Your task to perform on an android device: Go to Wikipedia Image 0: 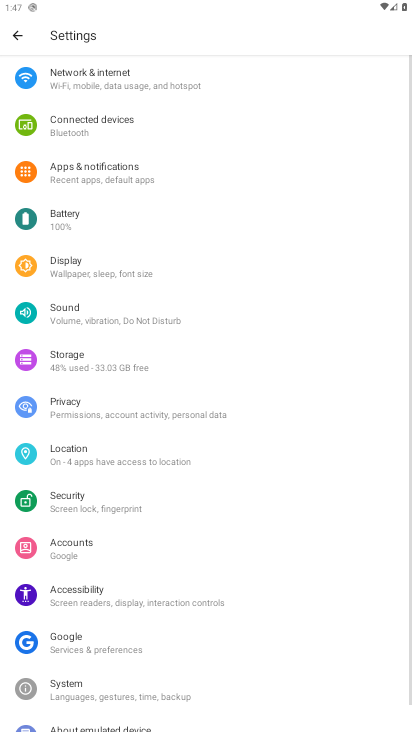
Step 0: press home button
Your task to perform on an android device: Go to Wikipedia Image 1: 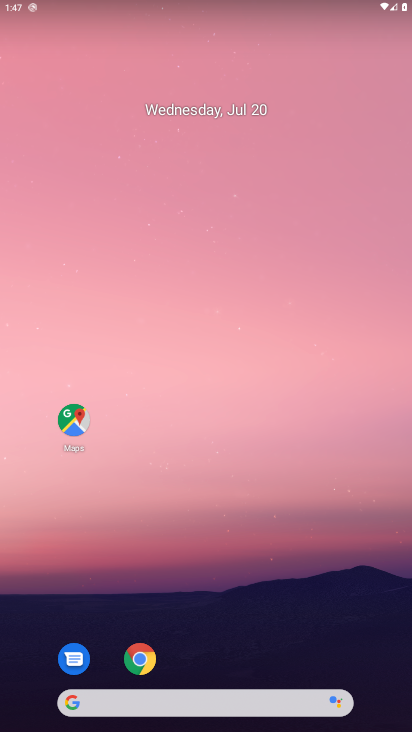
Step 1: click (105, 703)
Your task to perform on an android device: Go to Wikipedia Image 2: 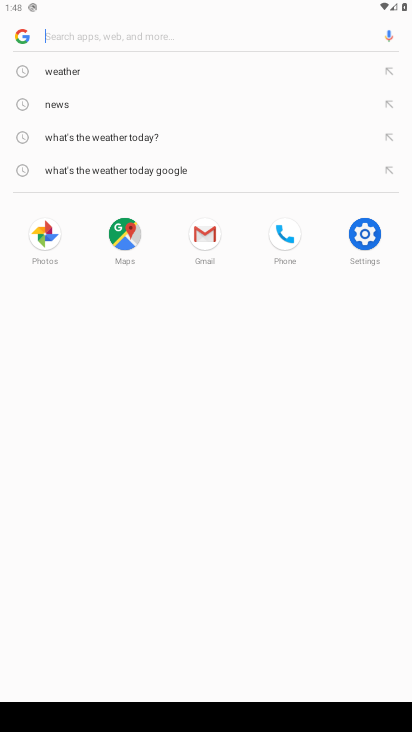
Step 2: type "Wikipedia"
Your task to perform on an android device: Go to Wikipedia Image 3: 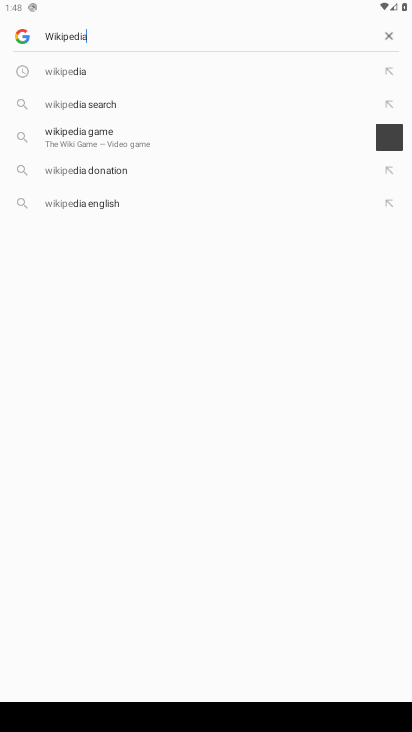
Step 3: type ""
Your task to perform on an android device: Go to Wikipedia Image 4: 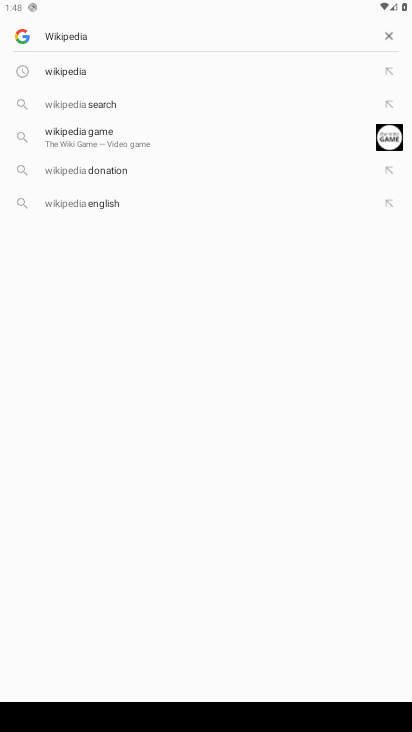
Step 4: click (75, 77)
Your task to perform on an android device: Go to Wikipedia Image 5: 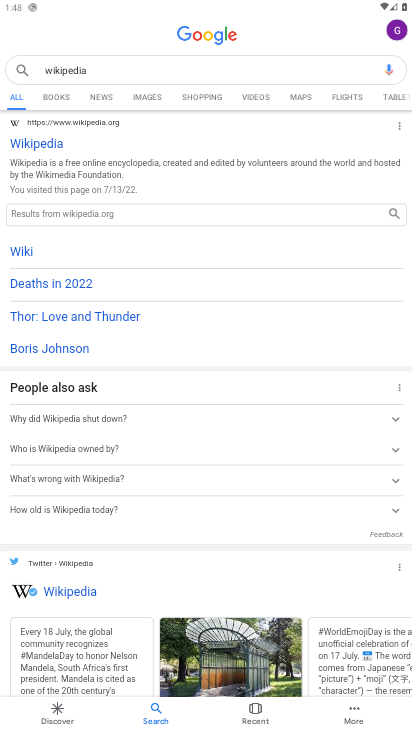
Step 5: task complete